Your task to perform on an android device: change timer sound Image 0: 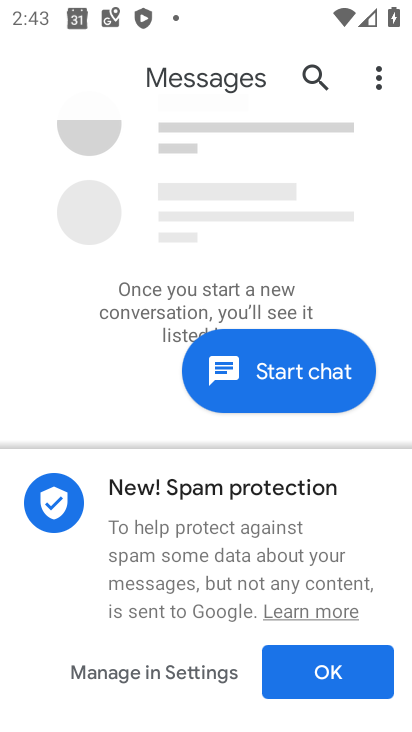
Step 0: press back button
Your task to perform on an android device: change timer sound Image 1: 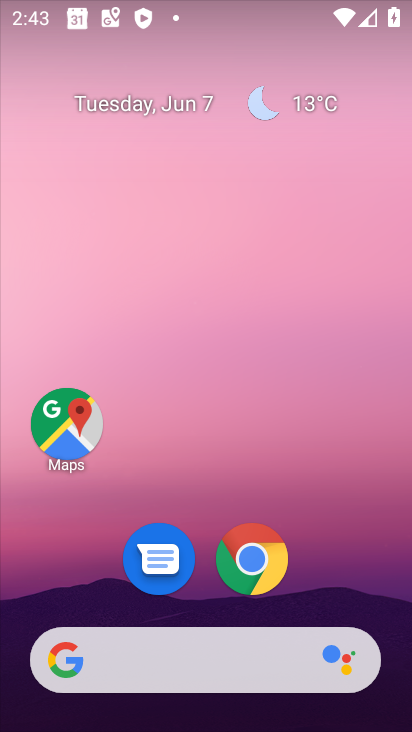
Step 1: drag from (357, 557) to (316, 84)
Your task to perform on an android device: change timer sound Image 2: 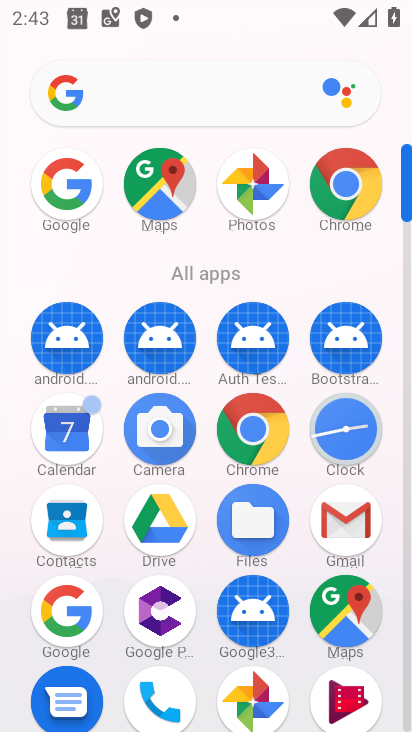
Step 2: click (347, 434)
Your task to perform on an android device: change timer sound Image 3: 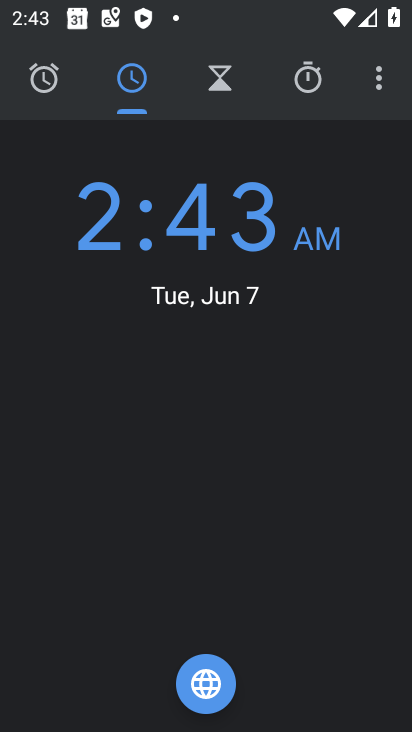
Step 3: click (385, 81)
Your task to perform on an android device: change timer sound Image 4: 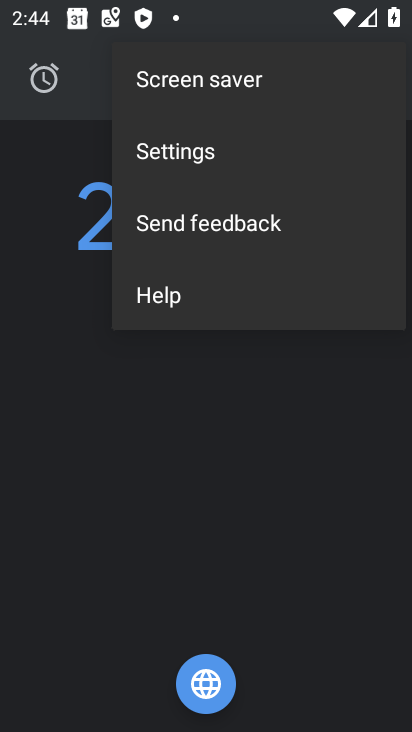
Step 4: click (206, 152)
Your task to perform on an android device: change timer sound Image 5: 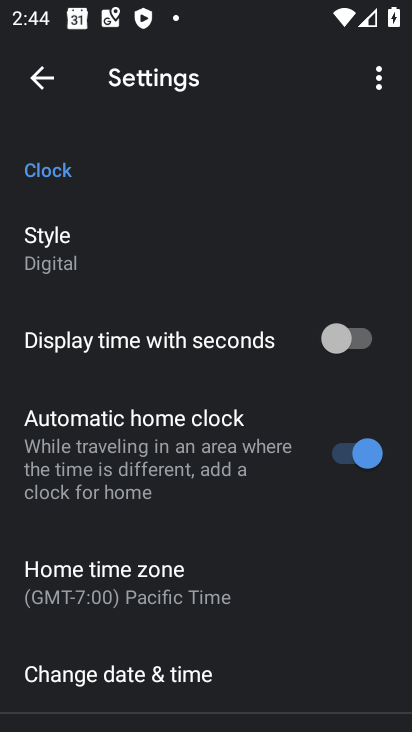
Step 5: drag from (191, 383) to (199, 126)
Your task to perform on an android device: change timer sound Image 6: 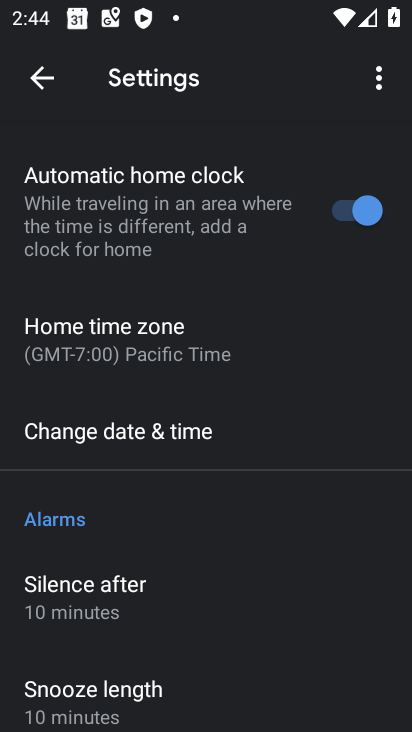
Step 6: drag from (118, 391) to (227, 168)
Your task to perform on an android device: change timer sound Image 7: 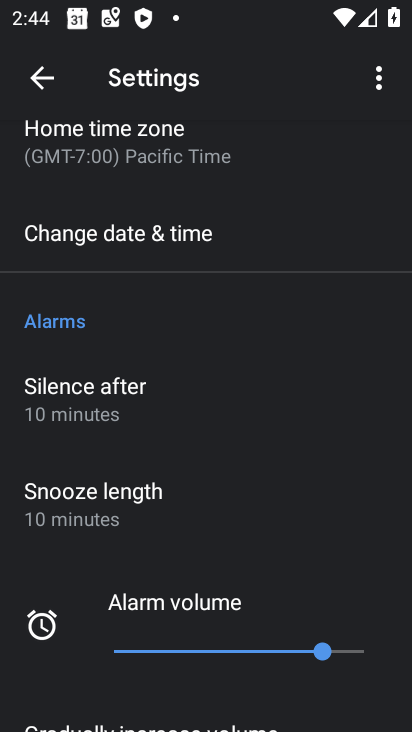
Step 7: drag from (121, 449) to (280, 151)
Your task to perform on an android device: change timer sound Image 8: 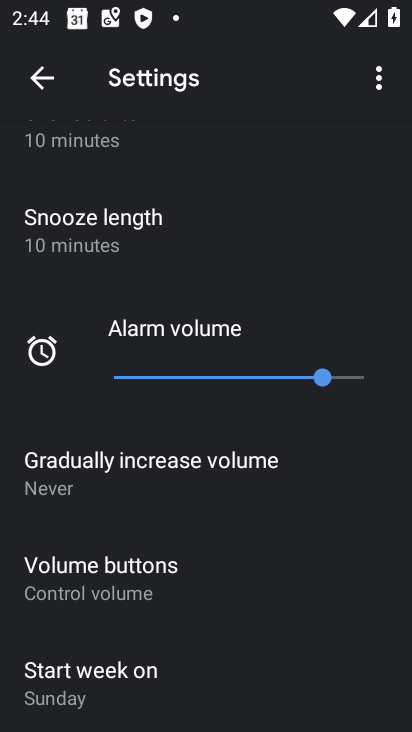
Step 8: drag from (117, 414) to (223, 140)
Your task to perform on an android device: change timer sound Image 9: 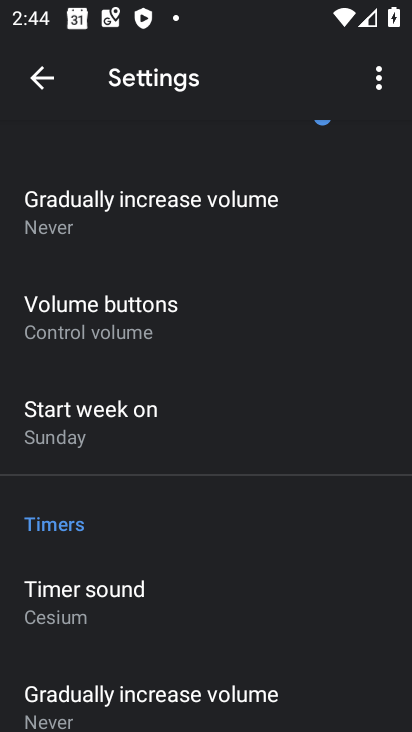
Step 9: click (96, 583)
Your task to perform on an android device: change timer sound Image 10: 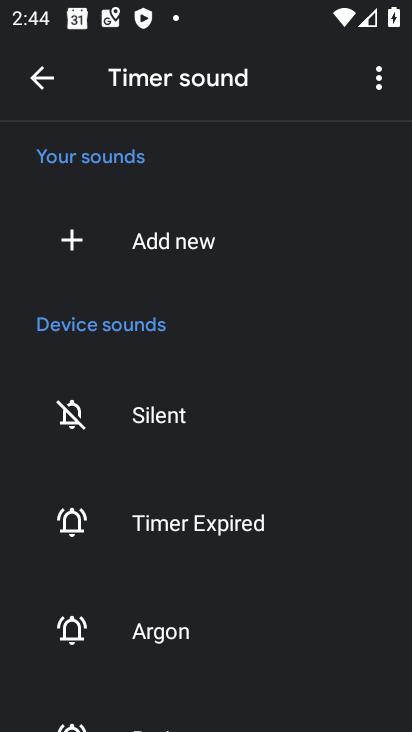
Step 10: drag from (149, 660) to (323, 429)
Your task to perform on an android device: change timer sound Image 11: 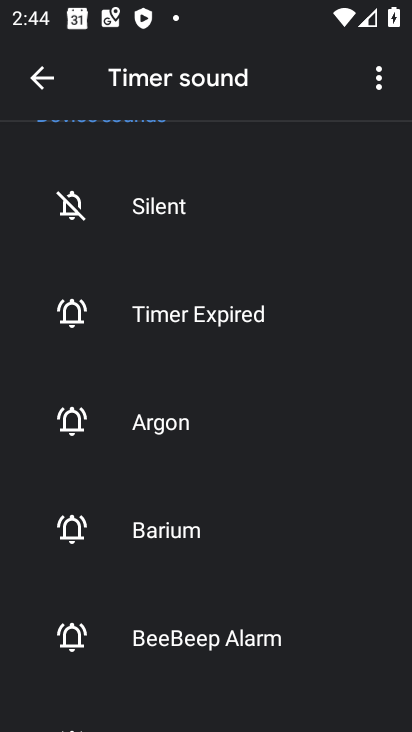
Step 11: drag from (248, 552) to (405, 319)
Your task to perform on an android device: change timer sound Image 12: 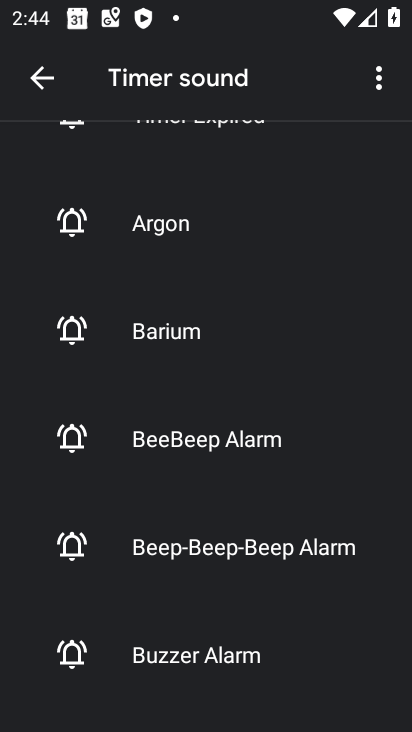
Step 12: drag from (236, 572) to (349, 427)
Your task to perform on an android device: change timer sound Image 13: 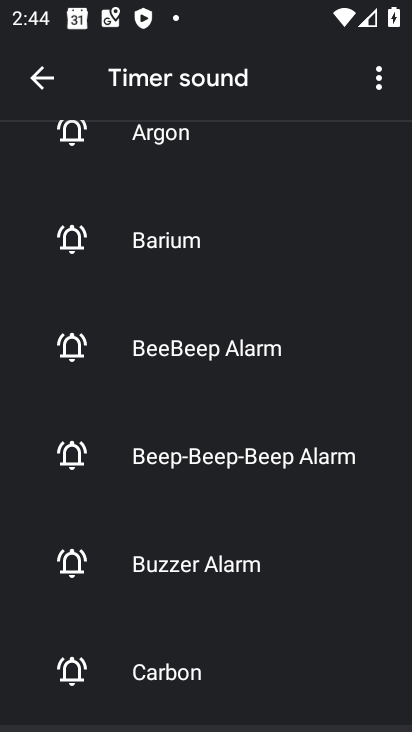
Step 13: click (205, 561)
Your task to perform on an android device: change timer sound Image 14: 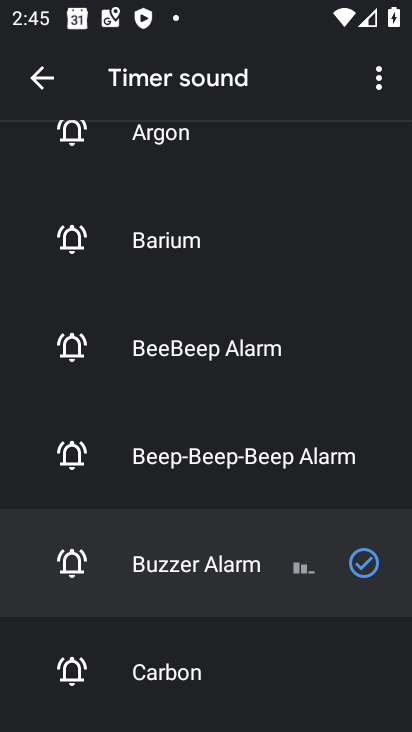
Step 14: task complete